Your task to perform on an android device: empty trash in the gmail app Image 0: 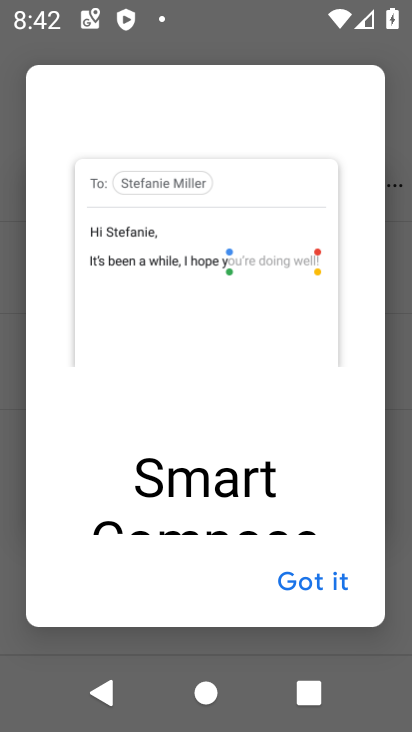
Step 0: press home button
Your task to perform on an android device: empty trash in the gmail app Image 1: 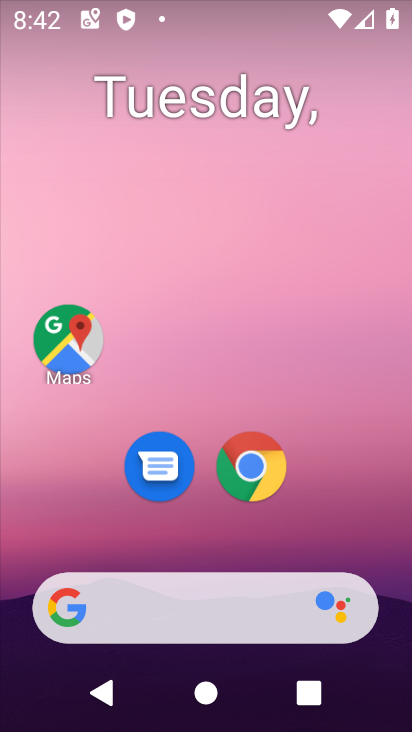
Step 1: drag from (208, 558) to (214, 8)
Your task to perform on an android device: empty trash in the gmail app Image 2: 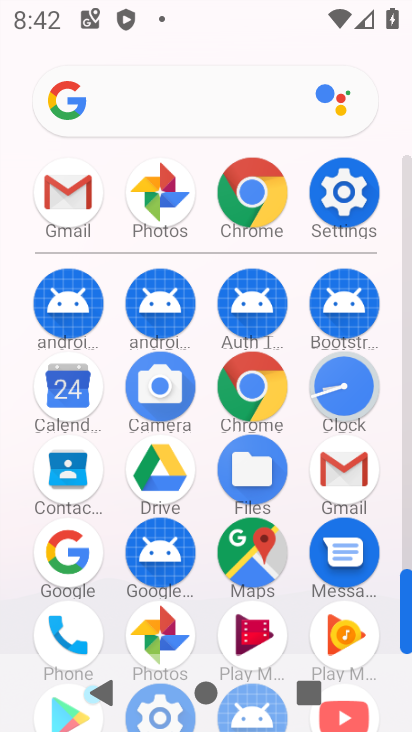
Step 2: click (331, 478)
Your task to perform on an android device: empty trash in the gmail app Image 3: 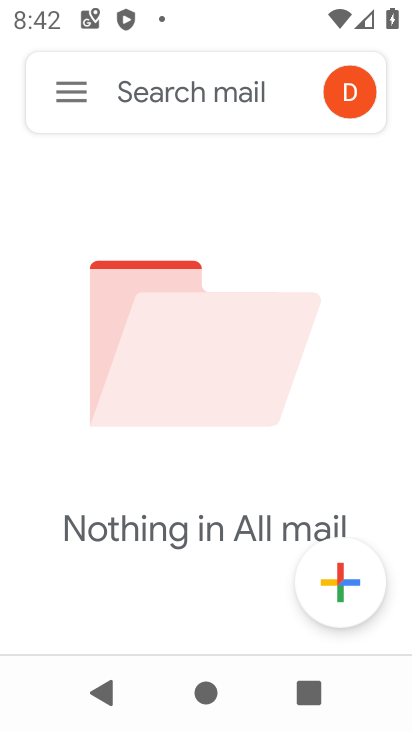
Step 3: click (74, 100)
Your task to perform on an android device: empty trash in the gmail app Image 4: 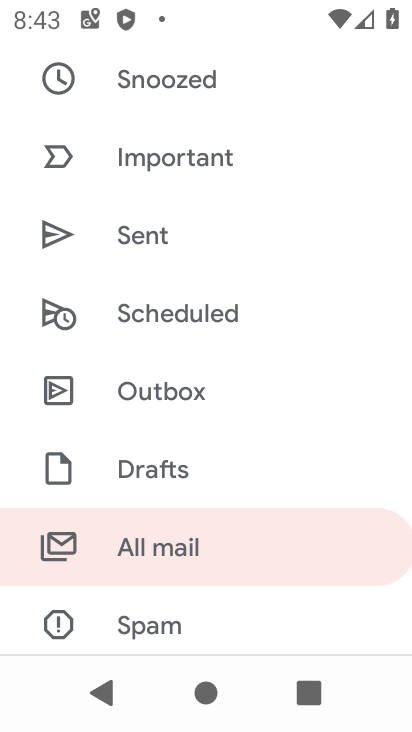
Step 4: drag from (133, 534) to (172, 376)
Your task to perform on an android device: empty trash in the gmail app Image 5: 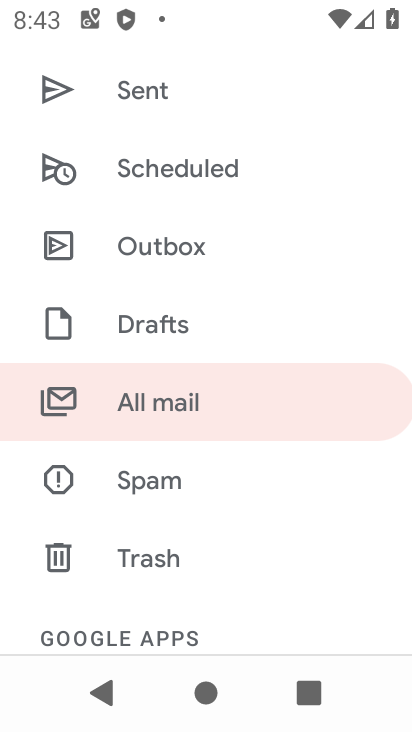
Step 5: click (181, 562)
Your task to perform on an android device: empty trash in the gmail app Image 6: 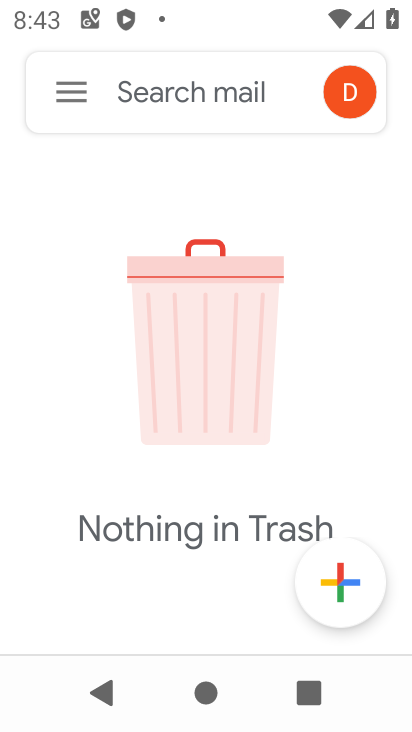
Step 6: task complete